Your task to perform on an android device: Search for pizza restaurants on Maps Image 0: 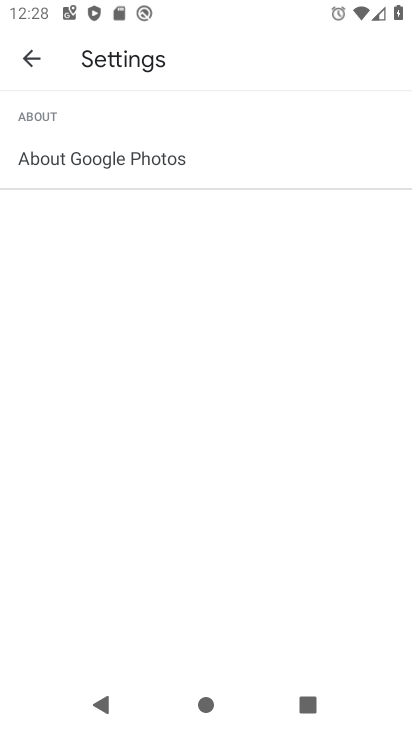
Step 0: press home button
Your task to perform on an android device: Search for pizza restaurants on Maps Image 1: 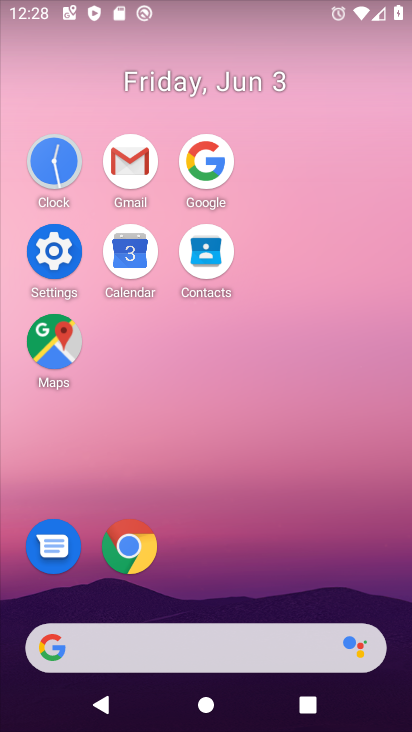
Step 1: click (59, 333)
Your task to perform on an android device: Search for pizza restaurants on Maps Image 2: 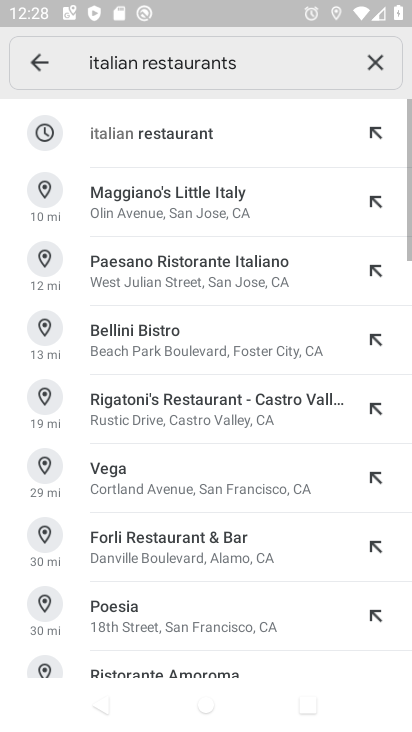
Step 2: click (381, 75)
Your task to perform on an android device: Search for pizza restaurants on Maps Image 3: 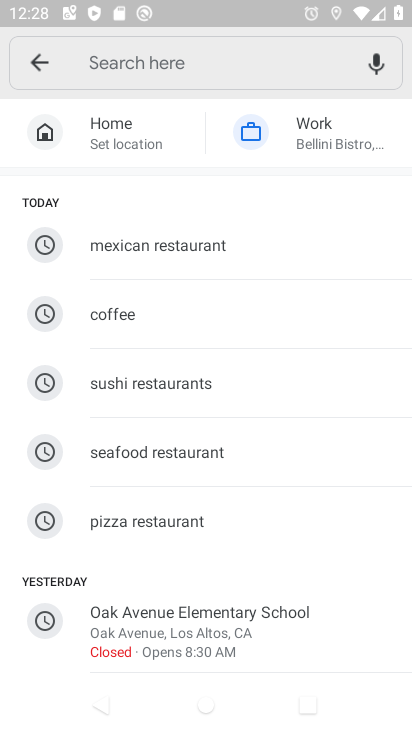
Step 3: click (192, 513)
Your task to perform on an android device: Search for pizza restaurants on Maps Image 4: 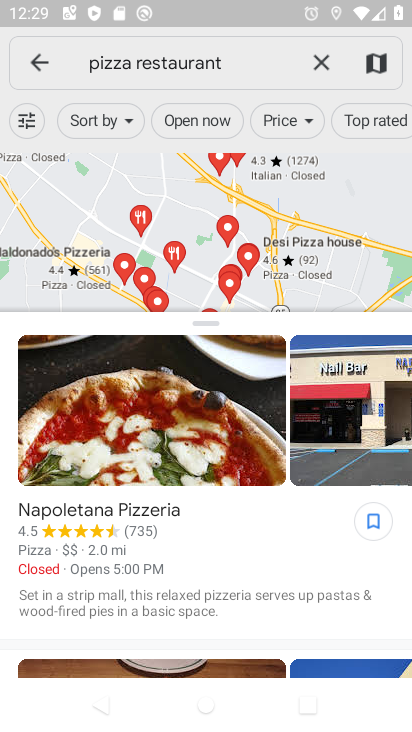
Step 4: task complete